Your task to perform on an android device: toggle wifi Image 0: 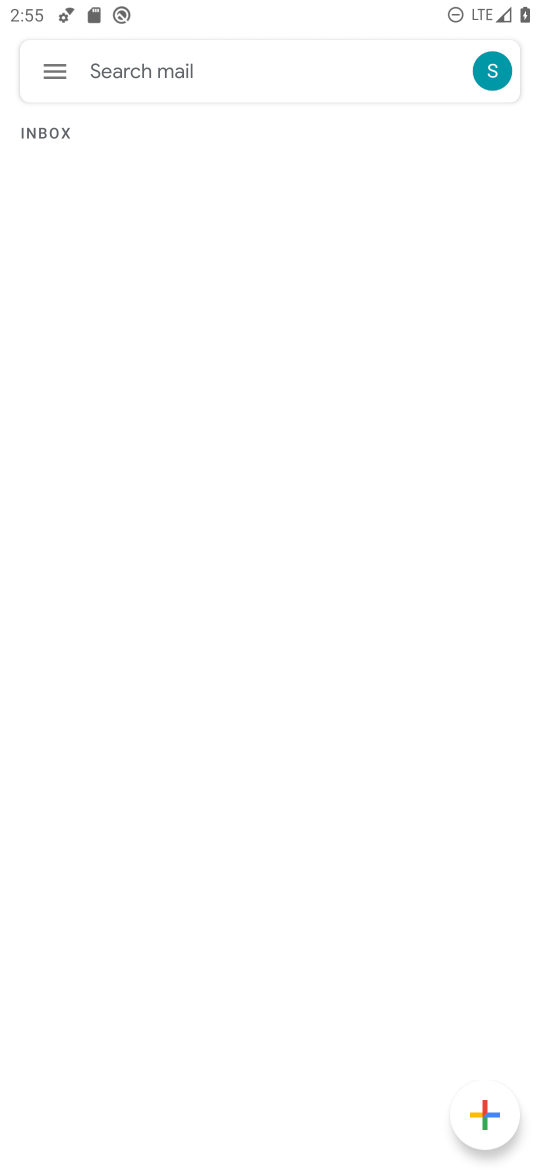
Step 0: press home button
Your task to perform on an android device: toggle wifi Image 1: 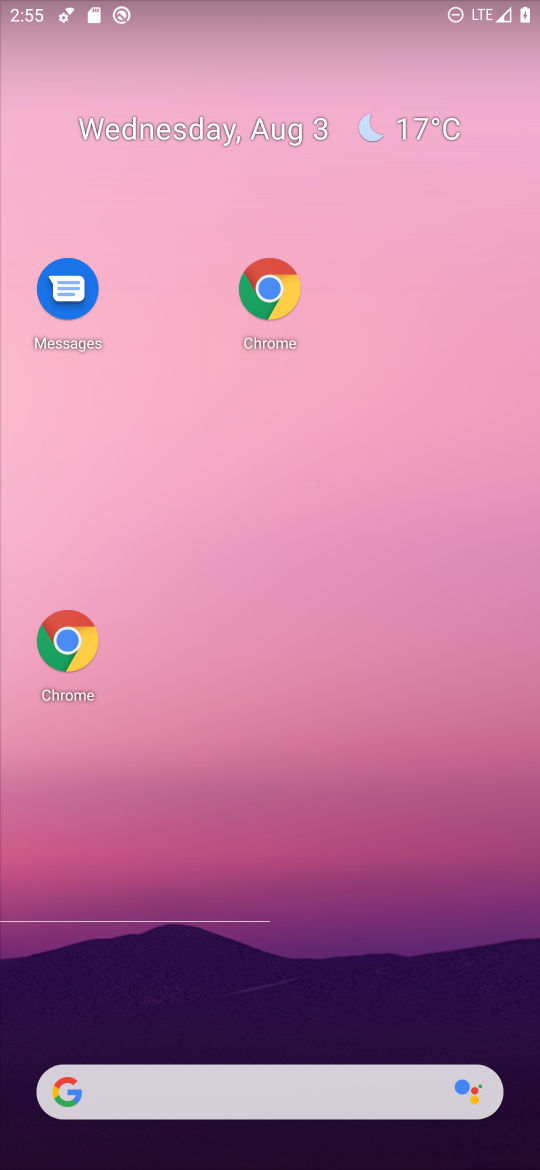
Step 1: drag from (251, 1035) to (228, 248)
Your task to perform on an android device: toggle wifi Image 2: 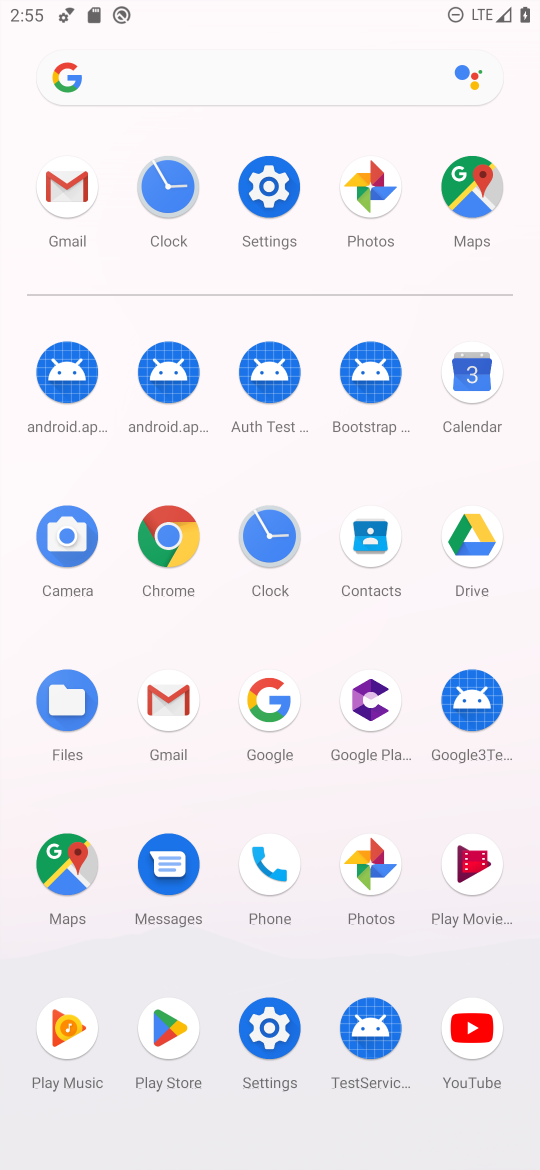
Step 2: click (268, 246)
Your task to perform on an android device: toggle wifi Image 3: 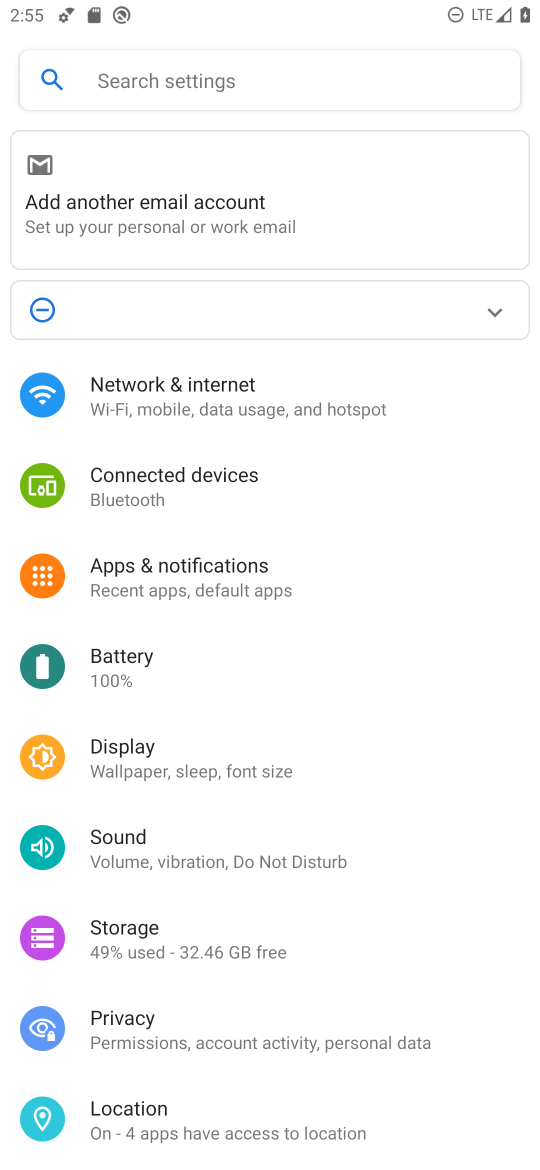
Step 3: click (249, 416)
Your task to perform on an android device: toggle wifi Image 4: 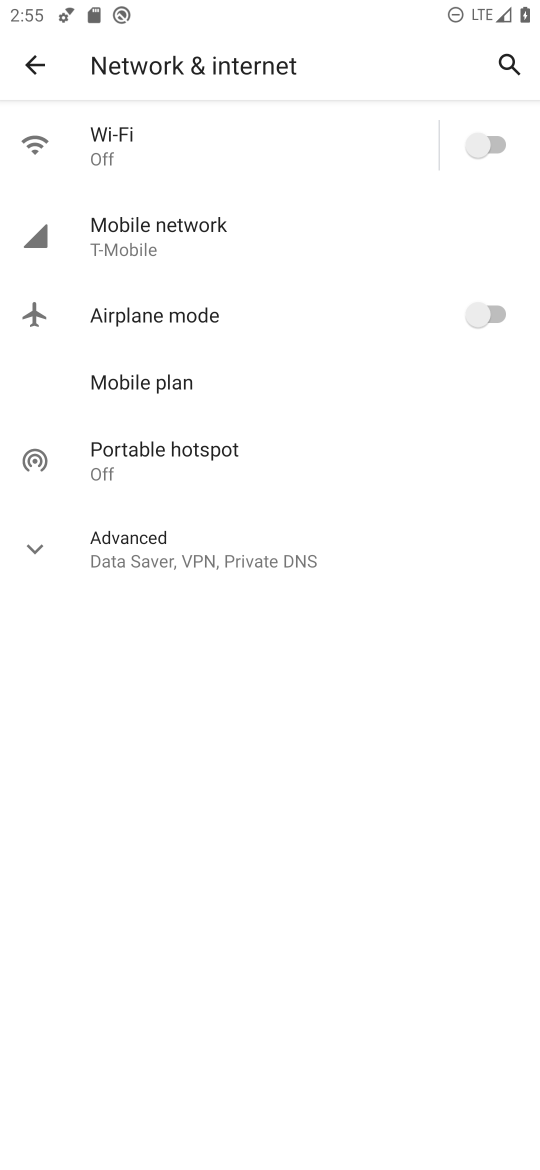
Step 4: task complete